Your task to perform on an android device: turn on priority inbox in the gmail app Image 0: 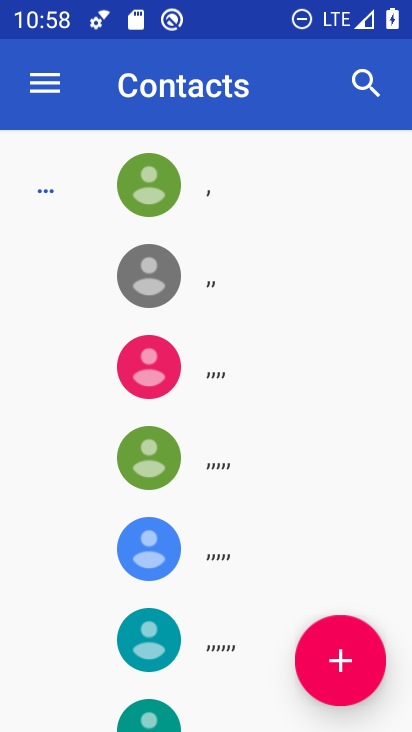
Step 0: press back button
Your task to perform on an android device: turn on priority inbox in the gmail app Image 1: 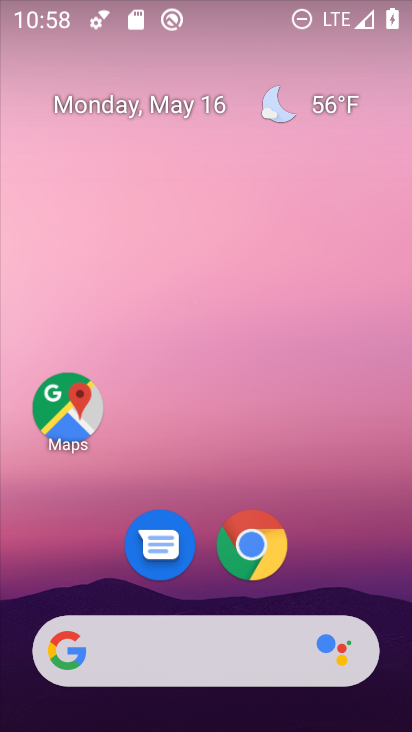
Step 1: drag from (322, 569) to (255, 3)
Your task to perform on an android device: turn on priority inbox in the gmail app Image 2: 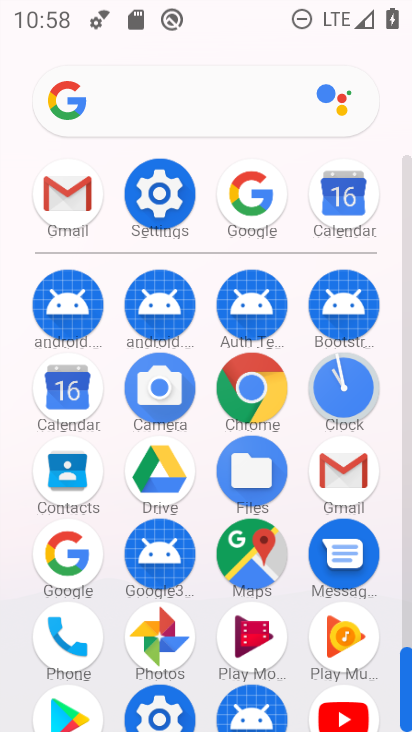
Step 2: click (62, 189)
Your task to perform on an android device: turn on priority inbox in the gmail app Image 3: 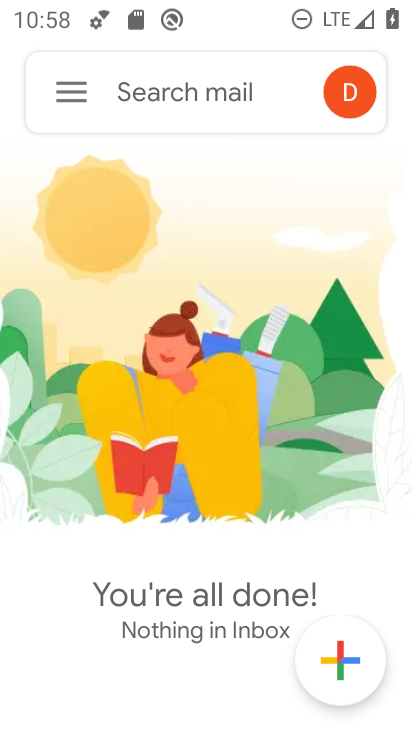
Step 3: click (65, 90)
Your task to perform on an android device: turn on priority inbox in the gmail app Image 4: 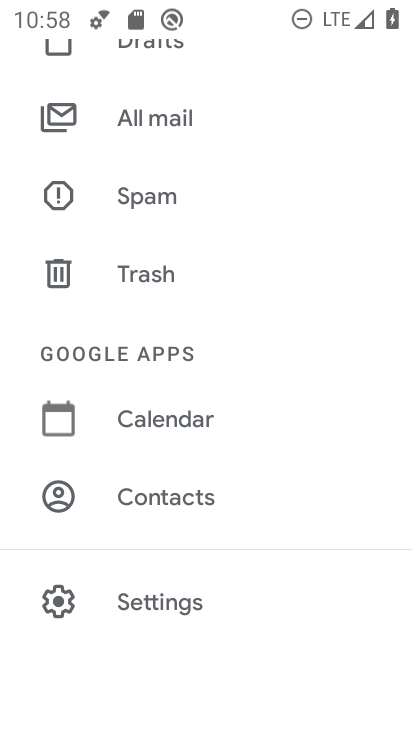
Step 4: click (179, 606)
Your task to perform on an android device: turn on priority inbox in the gmail app Image 5: 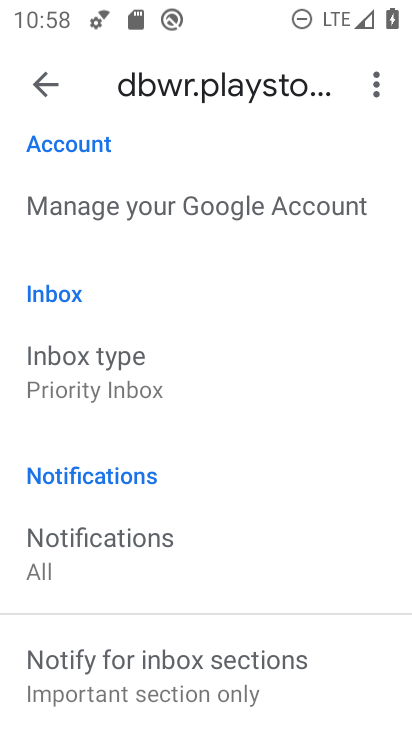
Step 5: click (107, 354)
Your task to perform on an android device: turn on priority inbox in the gmail app Image 6: 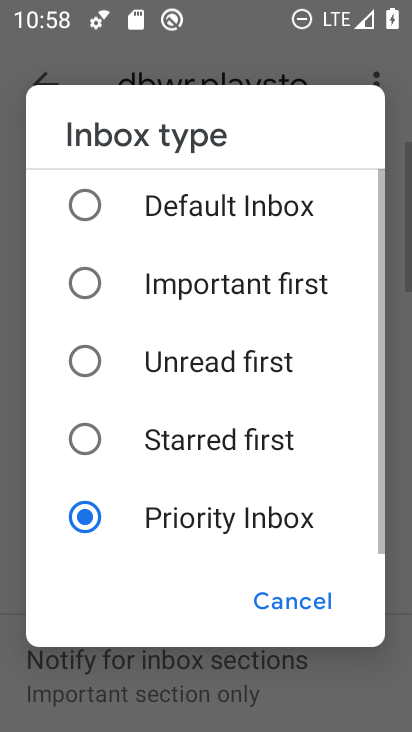
Step 6: click (84, 518)
Your task to perform on an android device: turn on priority inbox in the gmail app Image 7: 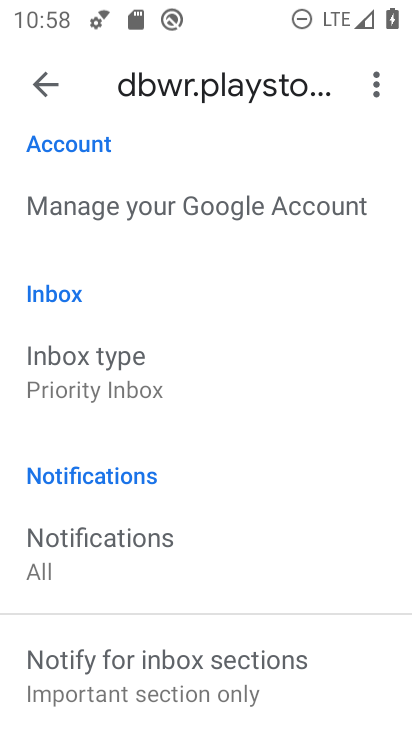
Step 7: task complete